Your task to perform on an android device: Add "acer nitro" to the cart on costco Image 0: 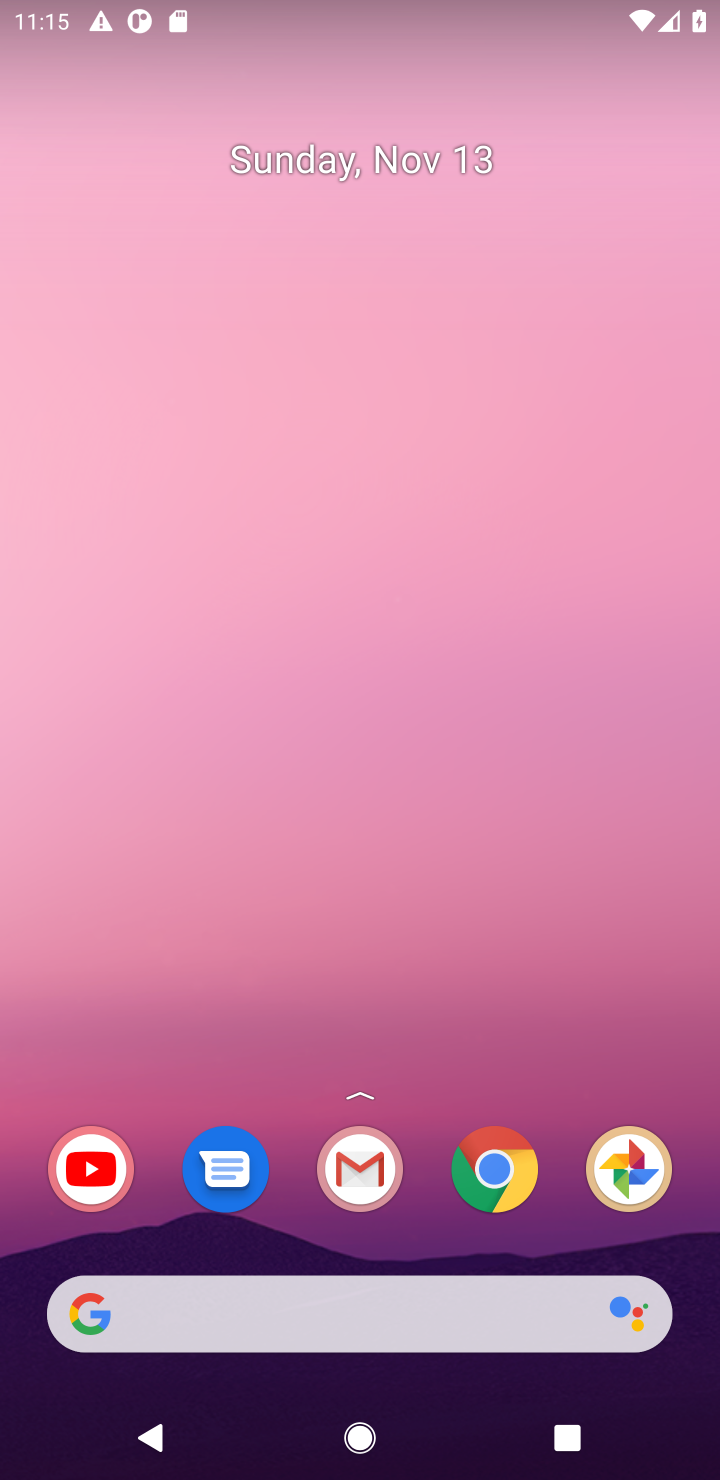
Step 0: drag from (422, 927) to (400, 140)
Your task to perform on an android device: Add "acer nitro" to the cart on costco Image 1: 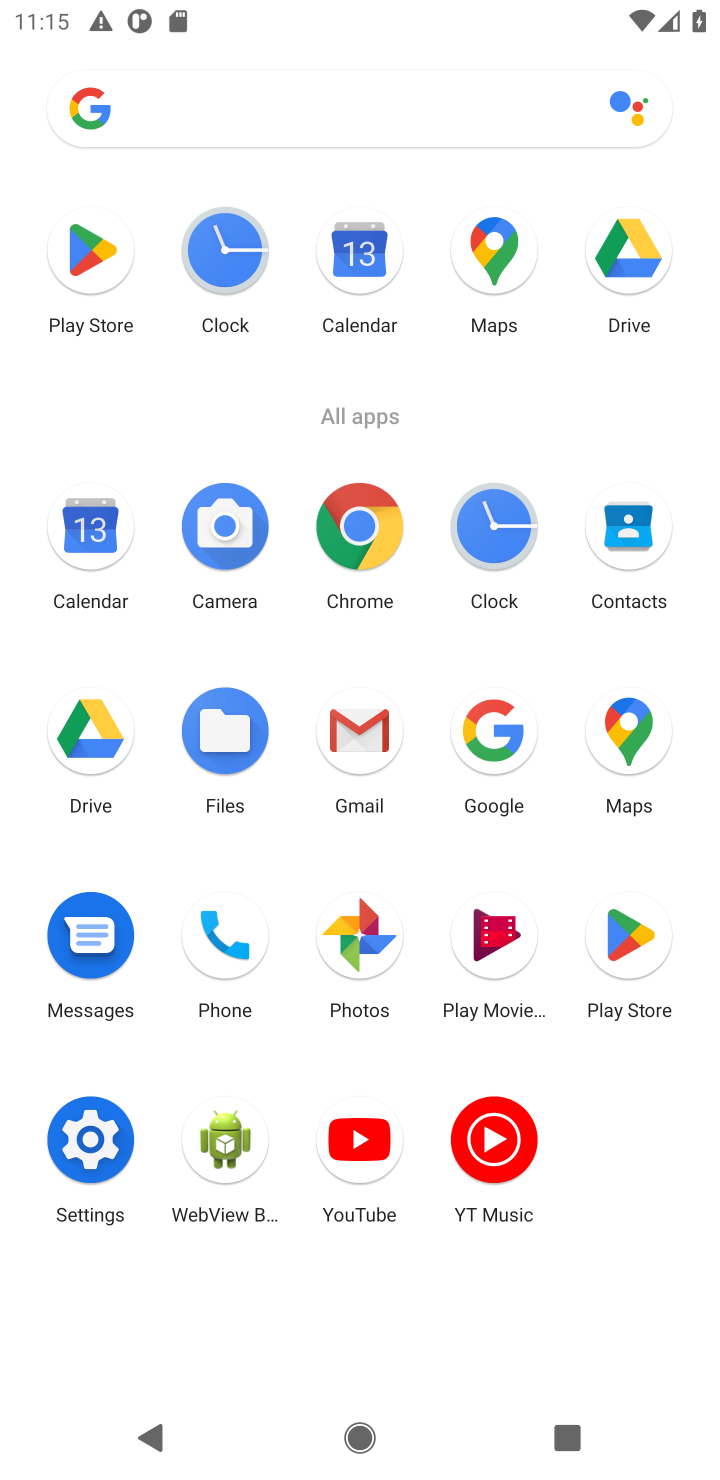
Step 1: click (355, 520)
Your task to perform on an android device: Add "acer nitro" to the cart on costco Image 2: 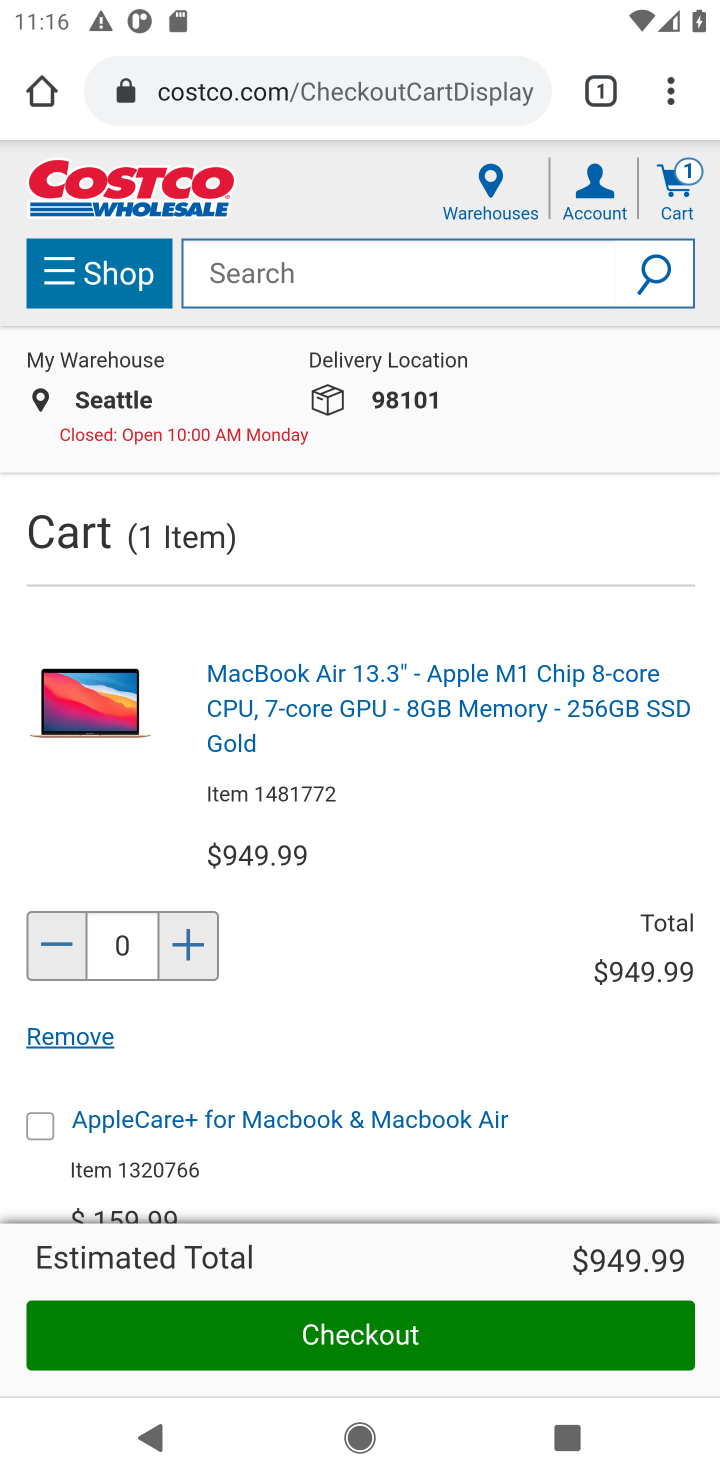
Step 2: click (407, 262)
Your task to perform on an android device: Add "acer nitro" to the cart on costco Image 3: 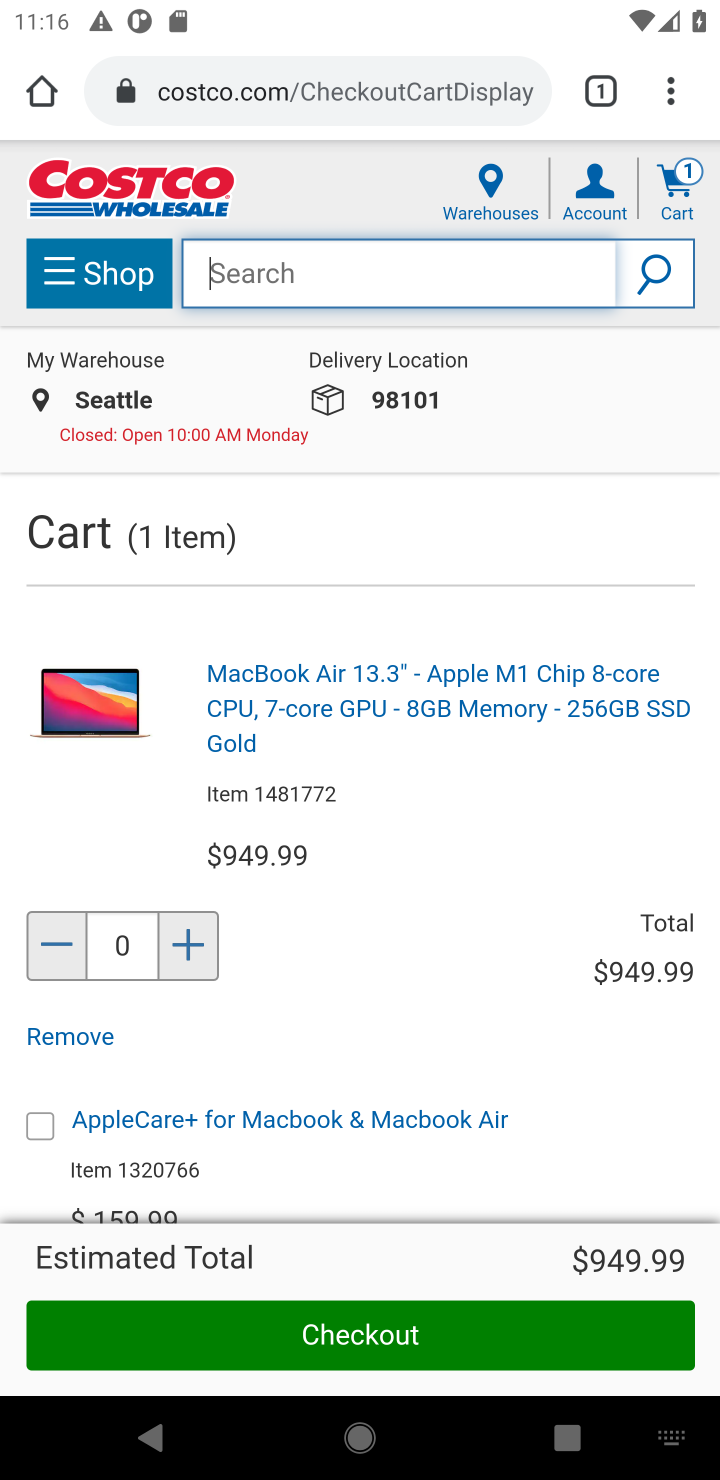
Step 3: type "acer nitro"
Your task to perform on an android device: Add "acer nitro" to the cart on costco Image 4: 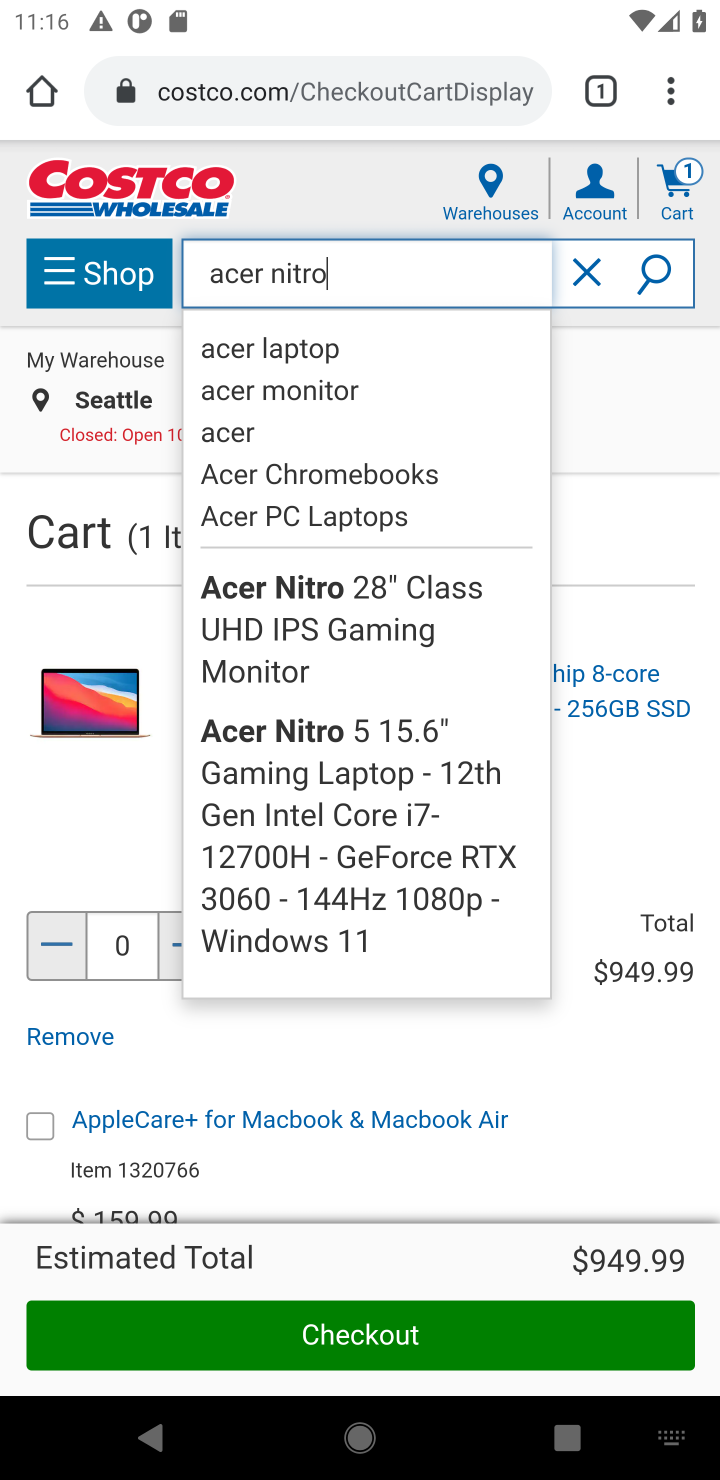
Step 4: press enter
Your task to perform on an android device: Add "acer nitro" to the cart on costco Image 5: 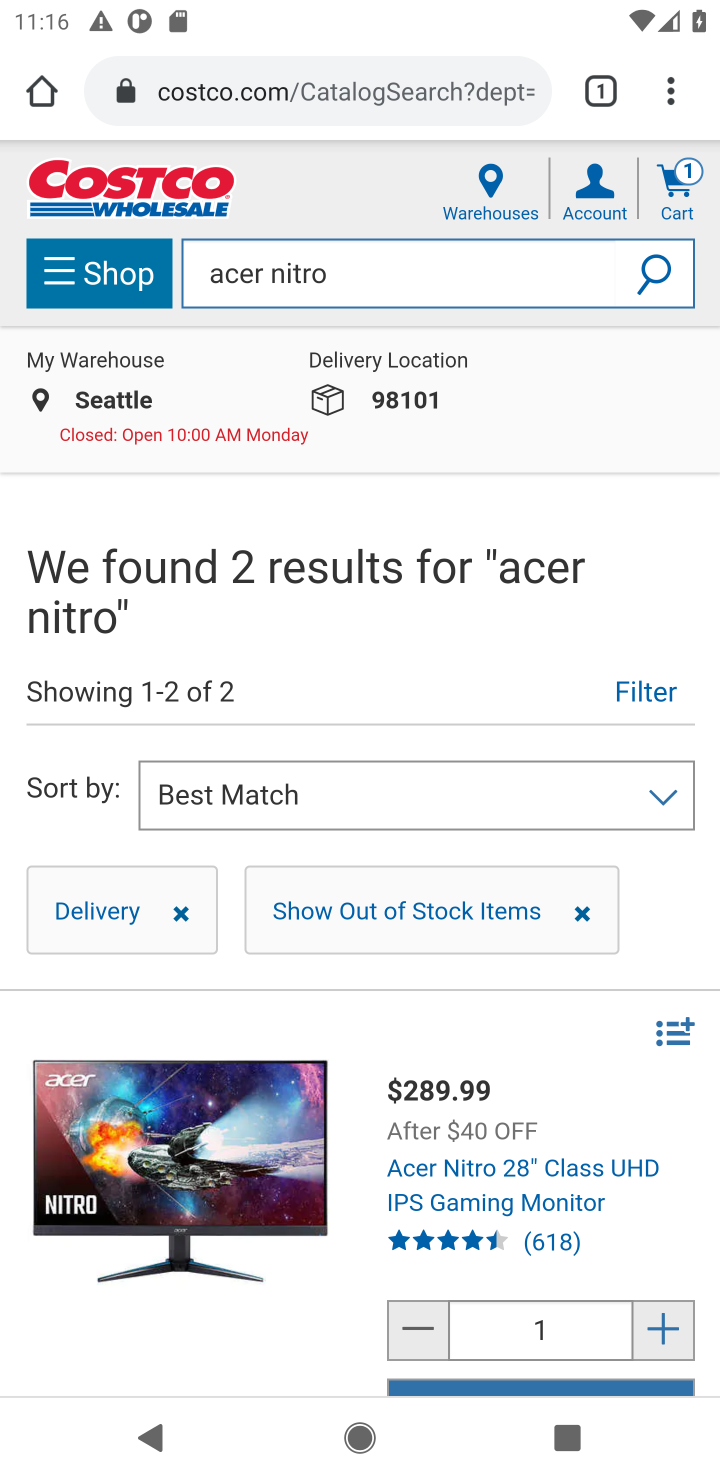
Step 5: drag from (520, 1174) to (484, 803)
Your task to perform on an android device: Add "acer nitro" to the cart on costco Image 6: 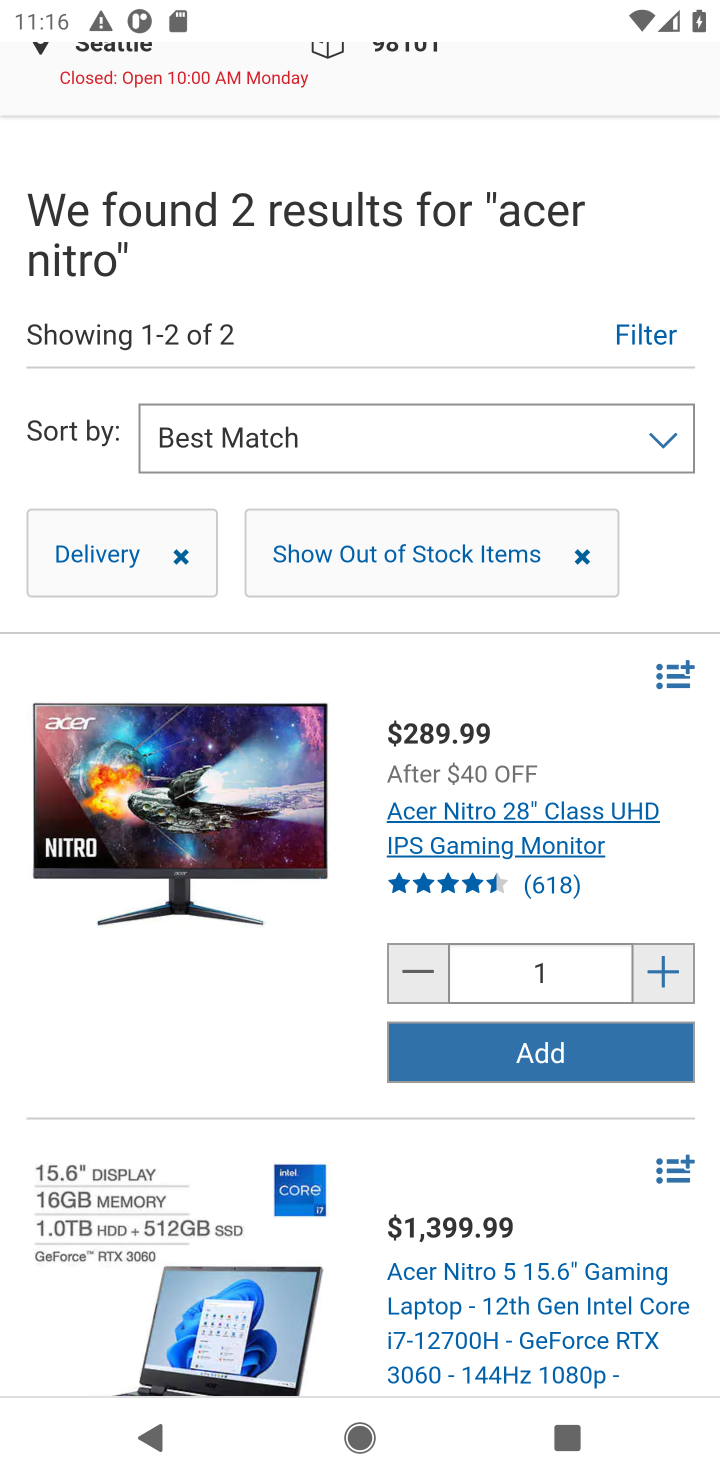
Step 6: click (558, 1058)
Your task to perform on an android device: Add "acer nitro" to the cart on costco Image 7: 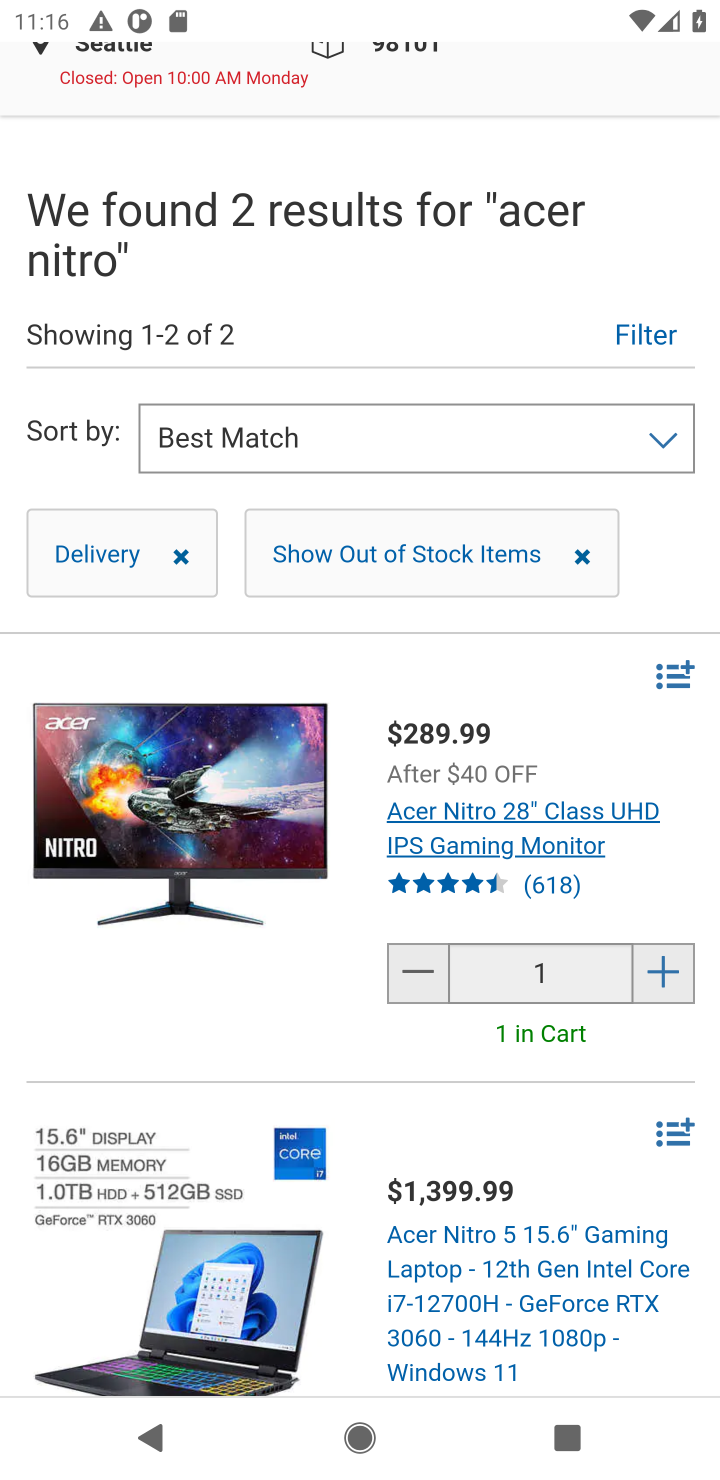
Step 7: task complete